Your task to perform on an android device: turn on translation in the chrome app Image 0: 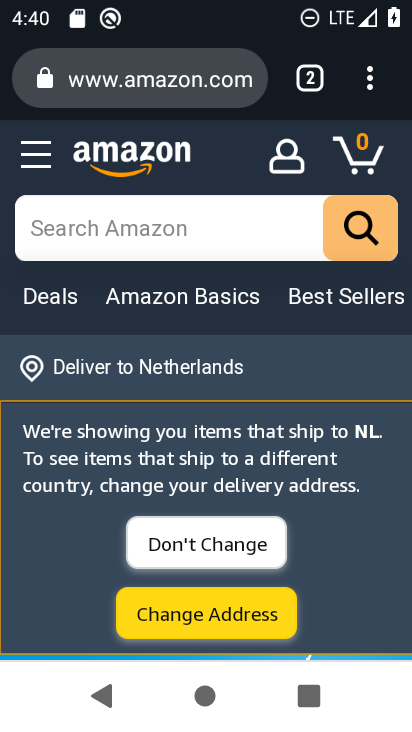
Step 0: press back button
Your task to perform on an android device: turn on translation in the chrome app Image 1: 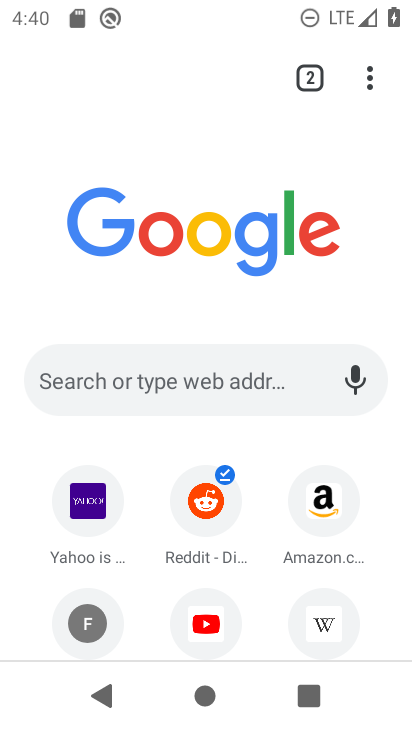
Step 1: press back button
Your task to perform on an android device: turn on translation in the chrome app Image 2: 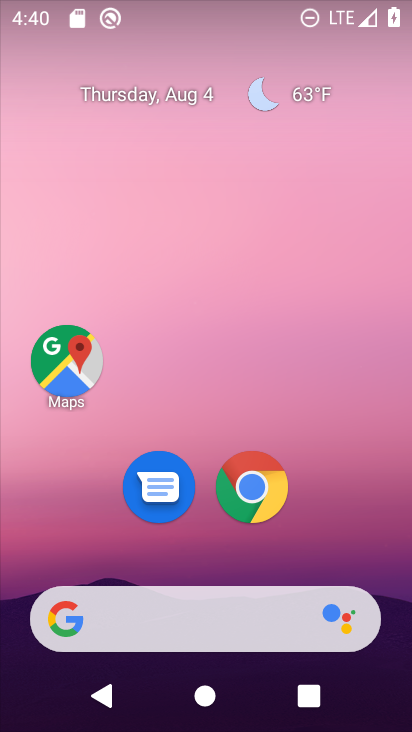
Step 2: click (263, 483)
Your task to perform on an android device: turn on translation in the chrome app Image 3: 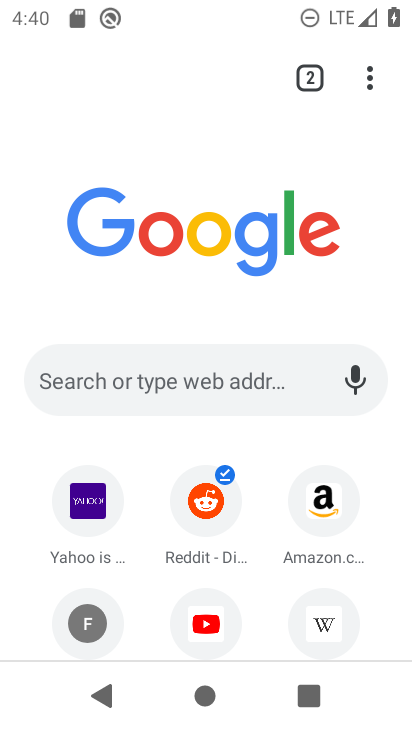
Step 3: drag from (363, 57) to (158, 514)
Your task to perform on an android device: turn on translation in the chrome app Image 4: 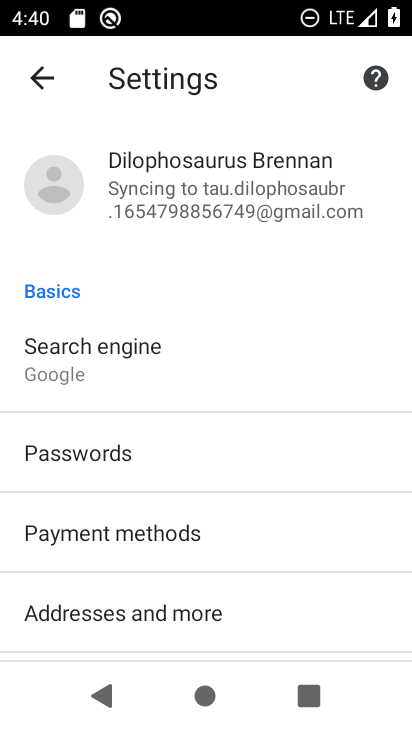
Step 4: drag from (120, 602) to (260, 133)
Your task to perform on an android device: turn on translation in the chrome app Image 5: 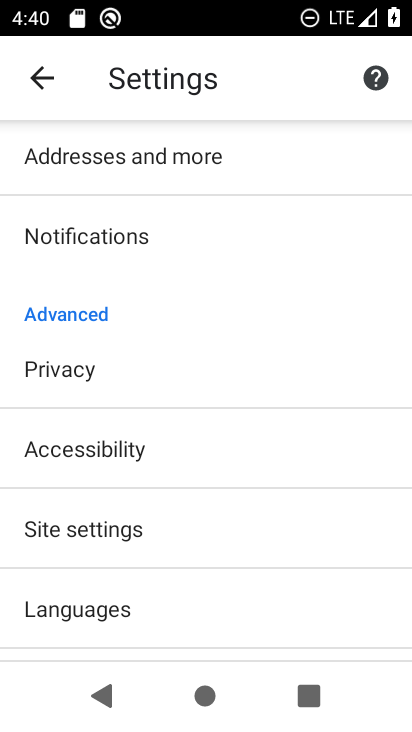
Step 5: click (72, 608)
Your task to perform on an android device: turn on translation in the chrome app Image 6: 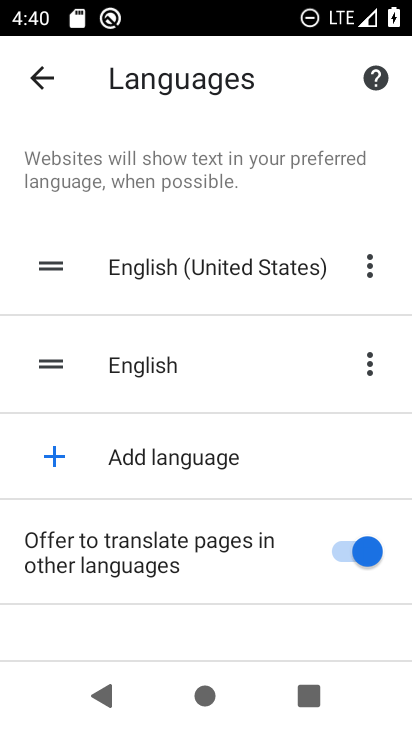
Step 6: task complete